Your task to perform on an android device: toggle wifi Image 0: 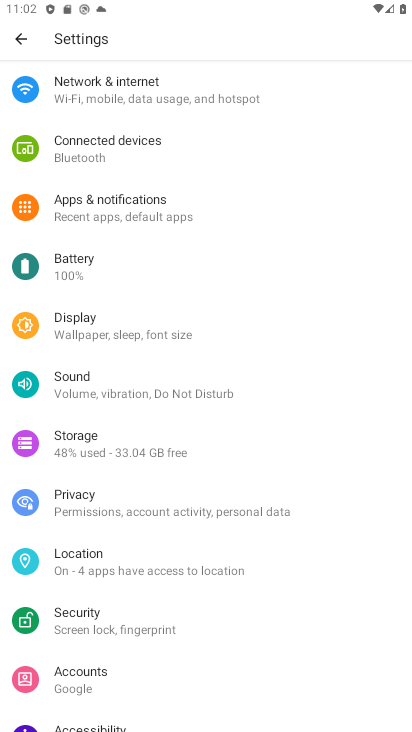
Step 0: press back button
Your task to perform on an android device: toggle wifi Image 1: 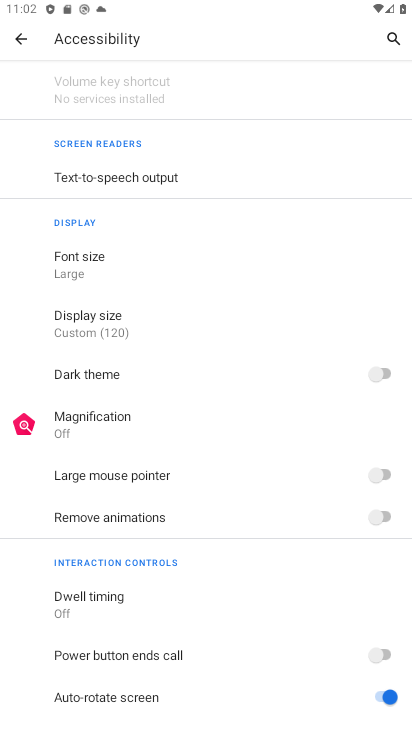
Step 1: press back button
Your task to perform on an android device: toggle wifi Image 2: 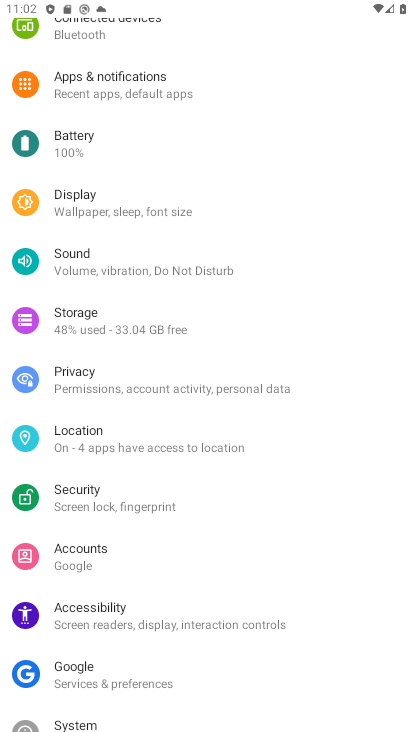
Step 2: press back button
Your task to perform on an android device: toggle wifi Image 3: 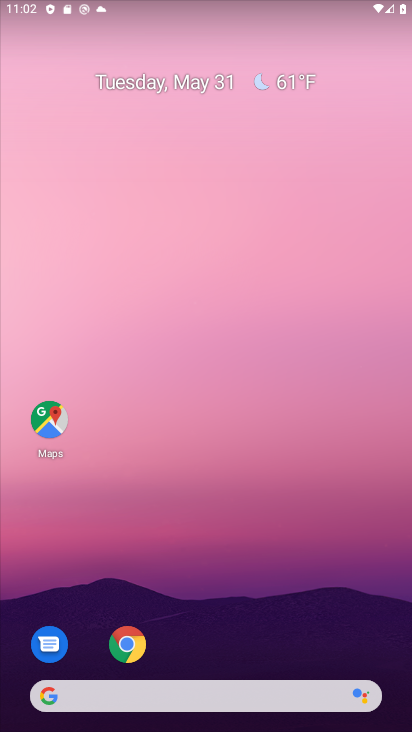
Step 3: drag from (221, 10) to (215, 462)
Your task to perform on an android device: toggle wifi Image 4: 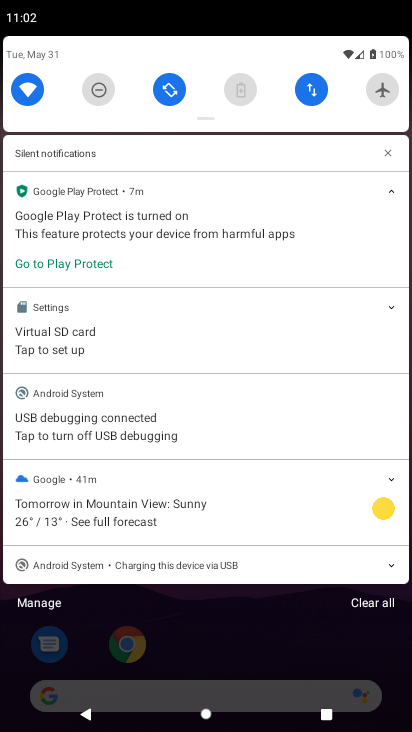
Step 4: click (27, 91)
Your task to perform on an android device: toggle wifi Image 5: 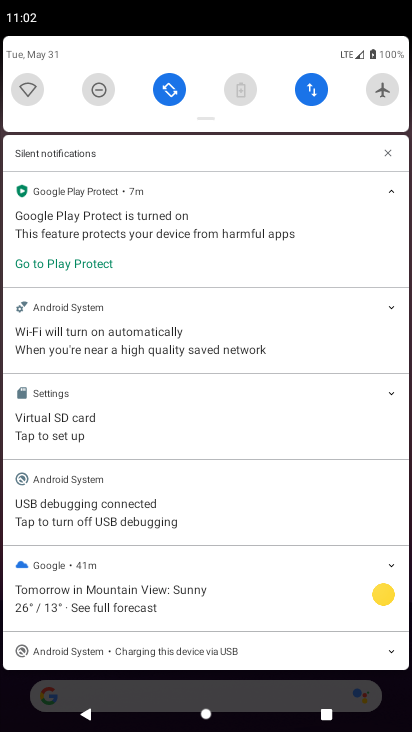
Step 5: task complete